Your task to perform on an android device: turn off notifications in google photos Image 0: 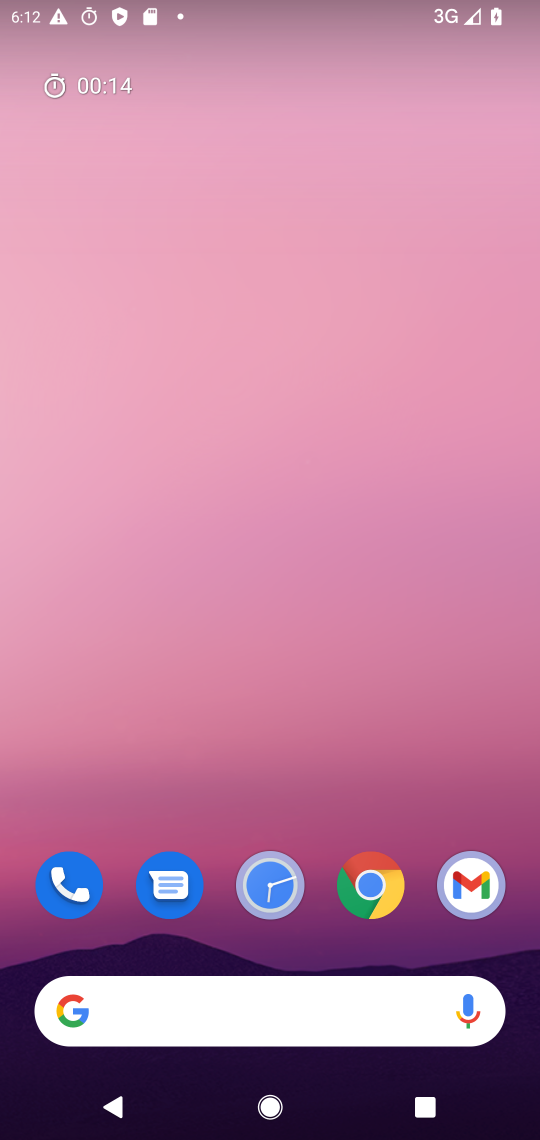
Step 0: drag from (297, 934) to (332, 54)
Your task to perform on an android device: turn off notifications in google photos Image 1: 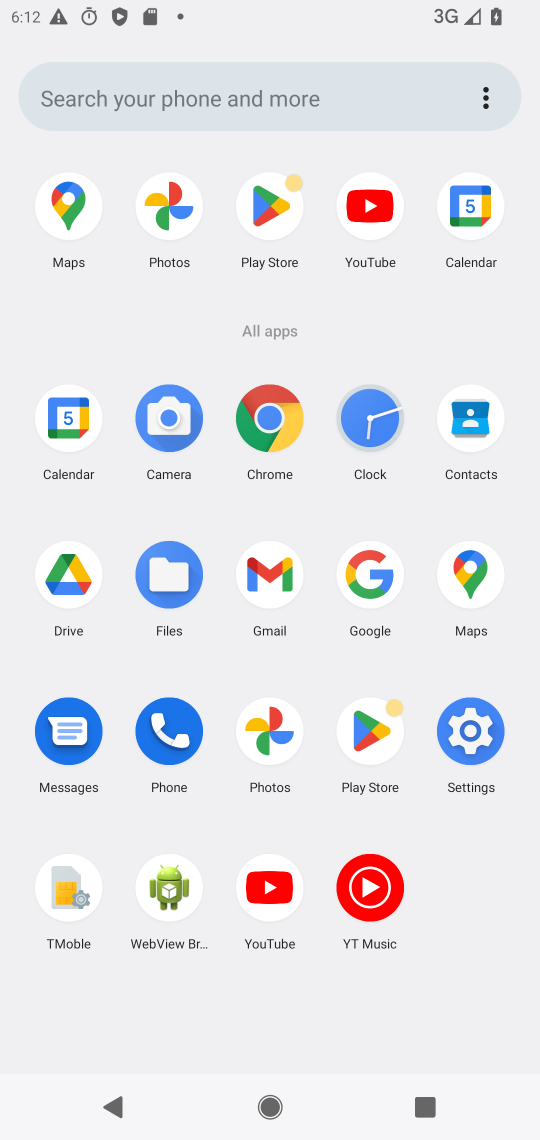
Step 1: click (276, 745)
Your task to perform on an android device: turn off notifications in google photos Image 2: 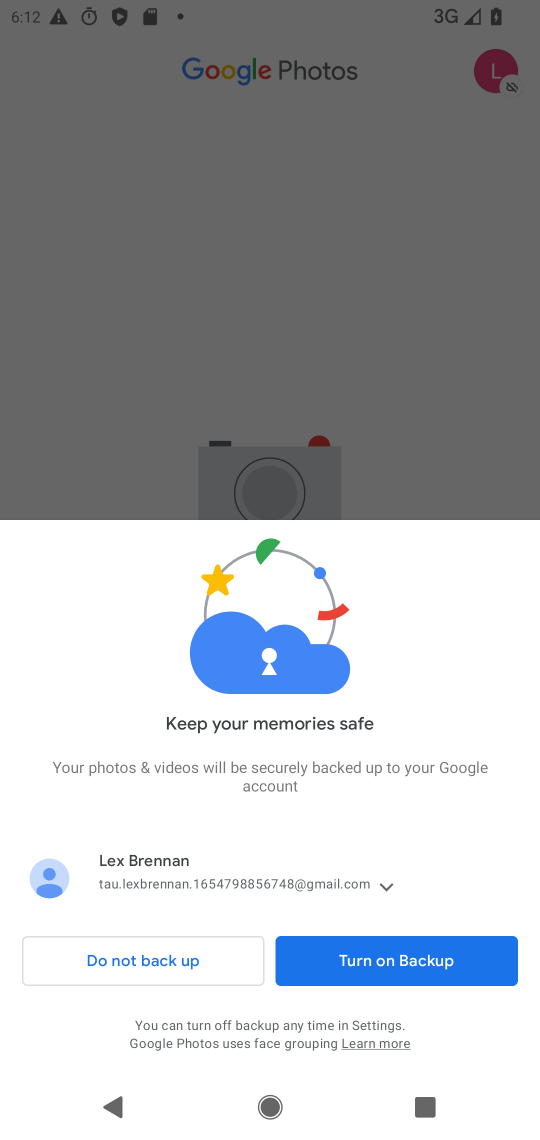
Step 2: click (178, 968)
Your task to perform on an android device: turn off notifications in google photos Image 3: 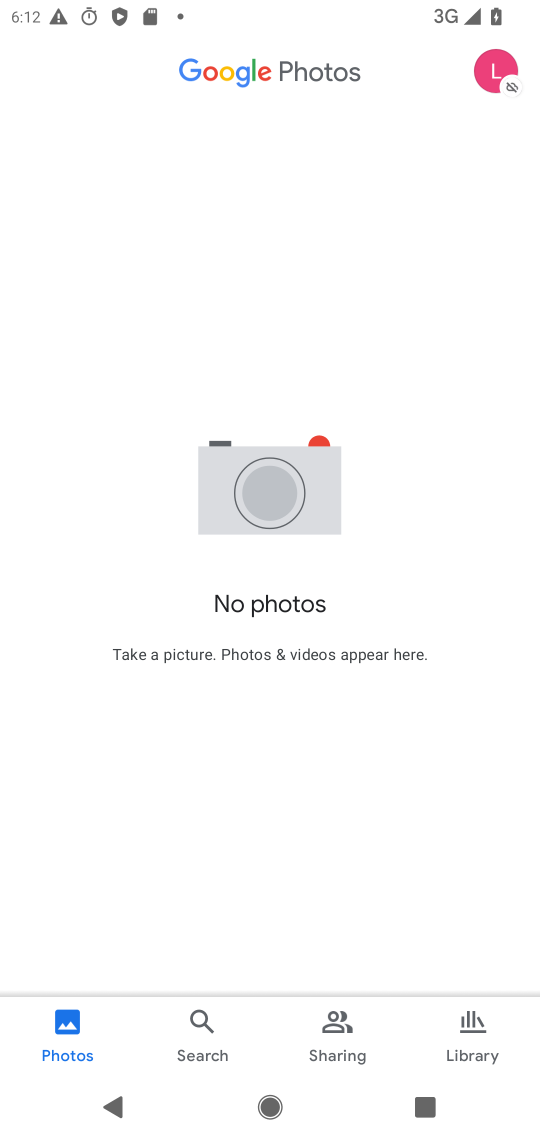
Step 3: click (494, 74)
Your task to perform on an android device: turn off notifications in google photos Image 4: 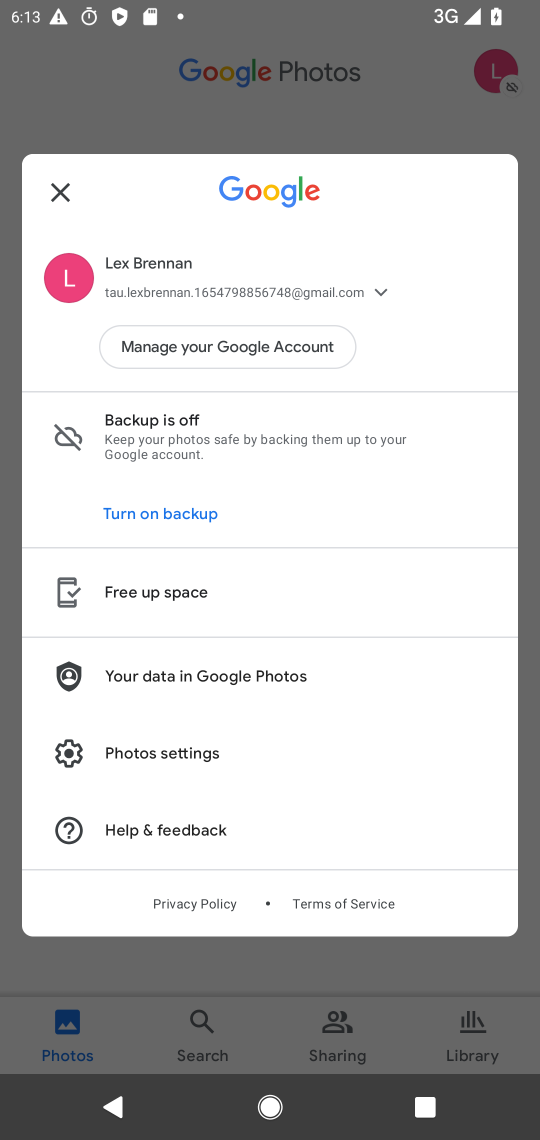
Step 4: click (172, 762)
Your task to perform on an android device: turn off notifications in google photos Image 5: 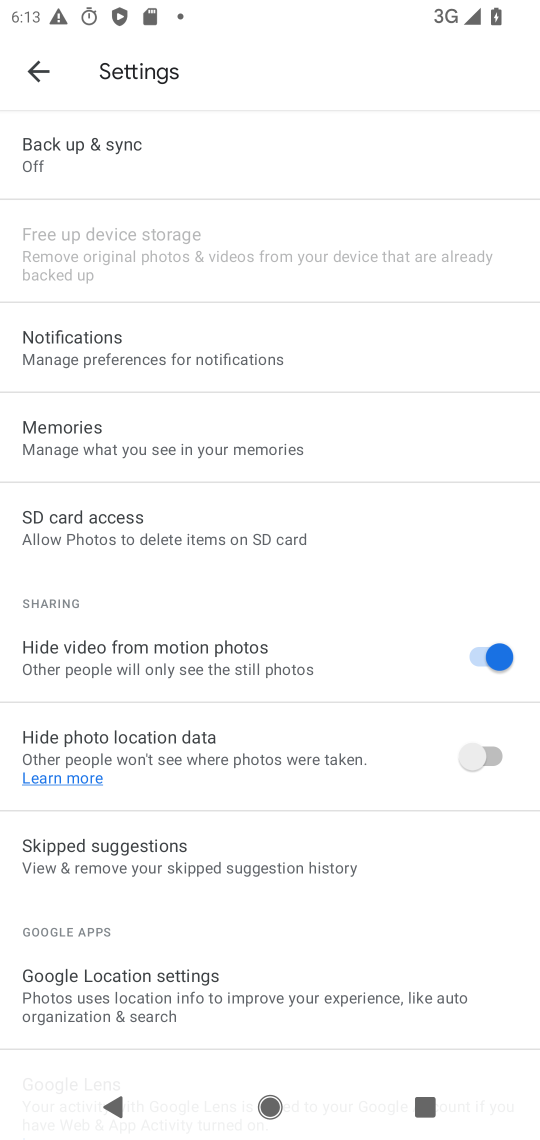
Step 5: drag from (66, 167) to (66, 474)
Your task to perform on an android device: turn off notifications in google photos Image 6: 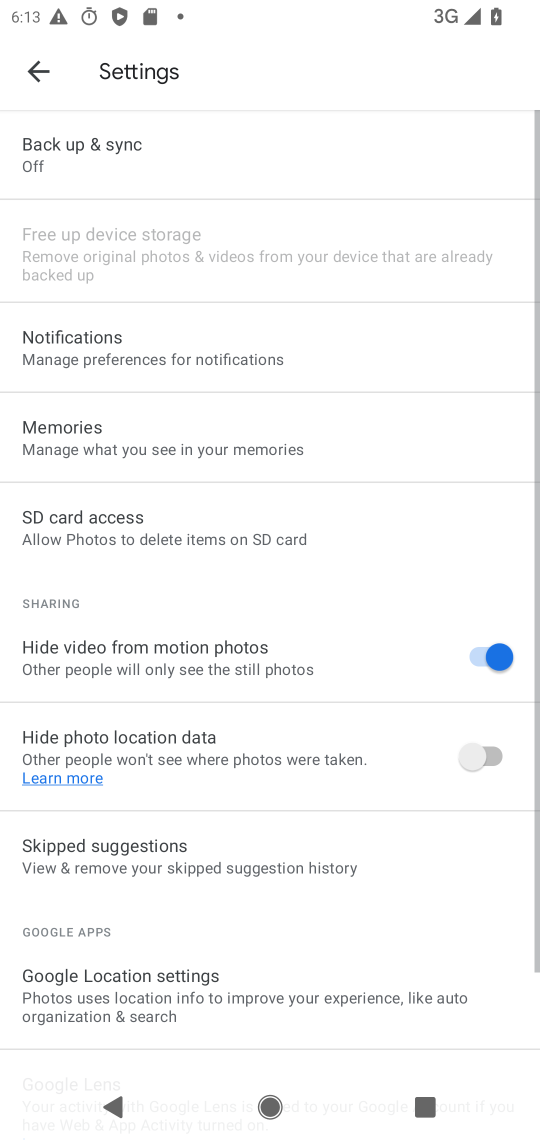
Step 6: click (76, 348)
Your task to perform on an android device: turn off notifications in google photos Image 7: 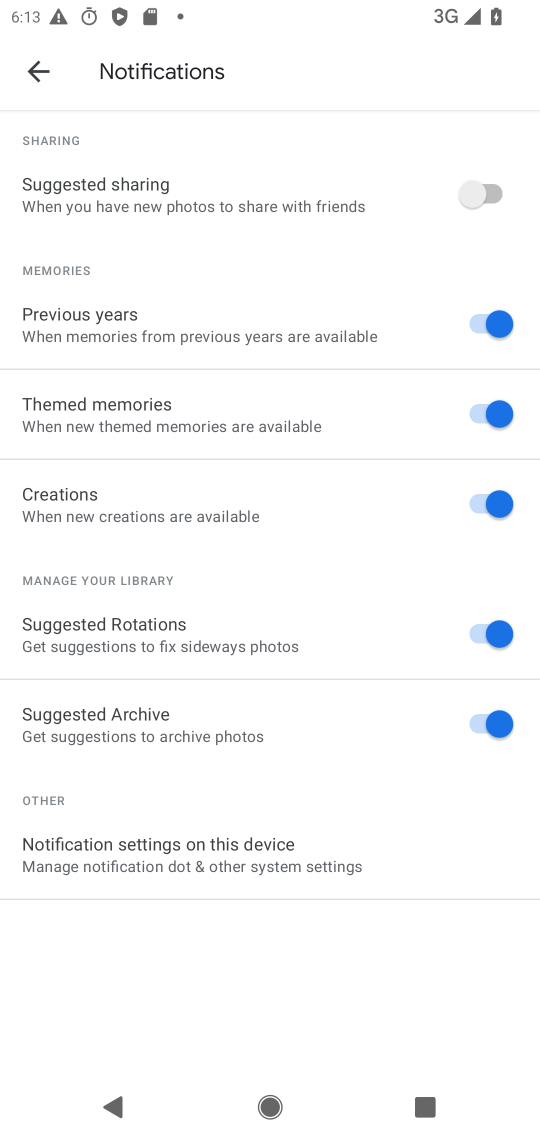
Step 7: click (186, 875)
Your task to perform on an android device: turn off notifications in google photos Image 8: 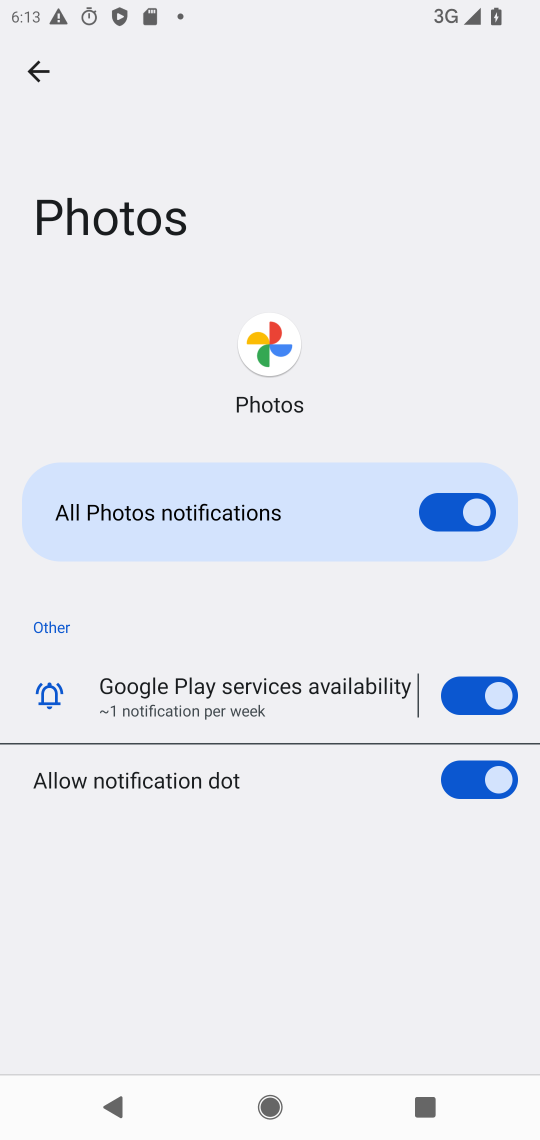
Step 8: click (379, 491)
Your task to perform on an android device: turn off notifications in google photos Image 9: 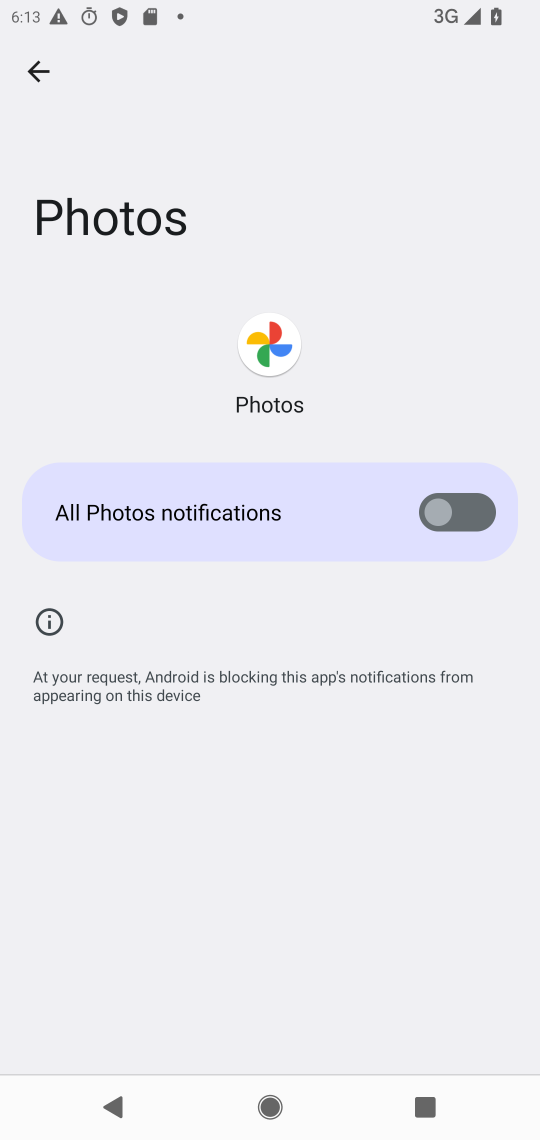
Step 9: task complete